Your task to perform on an android device: move a message to another label in the gmail app Image 0: 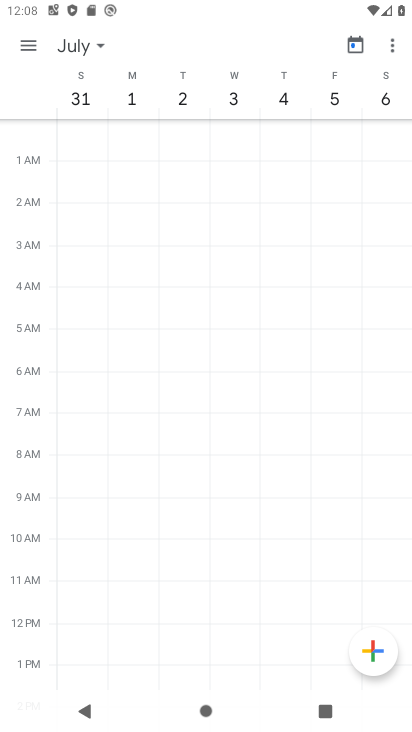
Step 0: press home button
Your task to perform on an android device: move a message to another label in the gmail app Image 1: 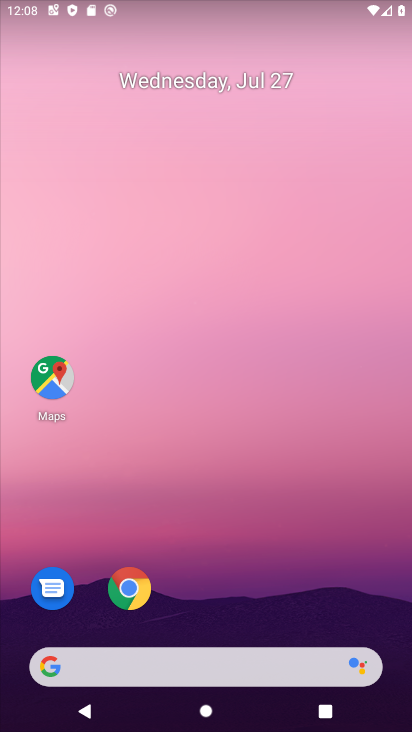
Step 1: drag from (255, 621) to (179, 112)
Your task to perform on an android device: move a message to another label in the gmail app Image 2: 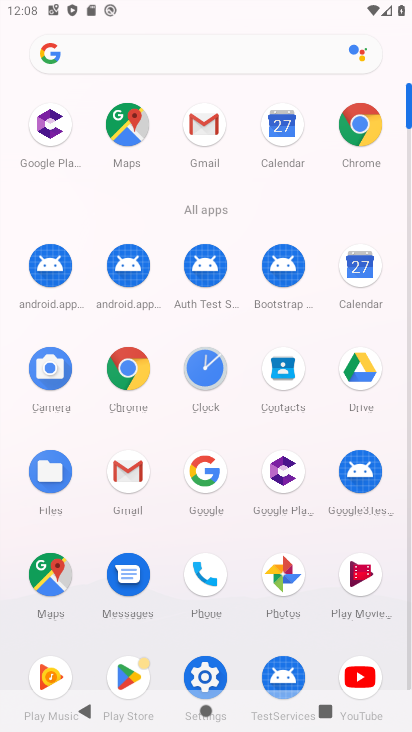
Step 2: click (203, 134)
Your task to perform on an android device: move a message to another label in the gmail app Image 3: 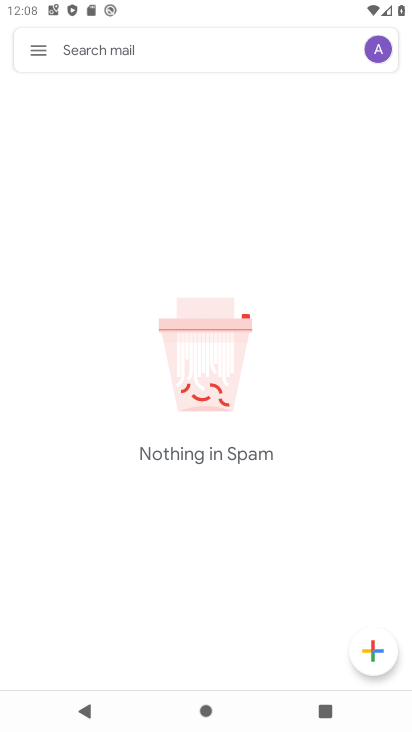
Step 3: click (32, 62)
Your task to perform on an android device: move a message to another label in the gmail app Image 4: 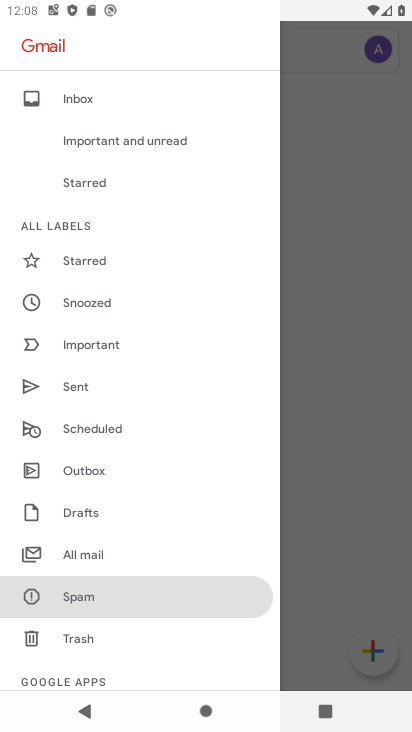
Step 4: click (91, 110)
Your task to perform on an android device: move a message to another label in the gmail app Image 5: 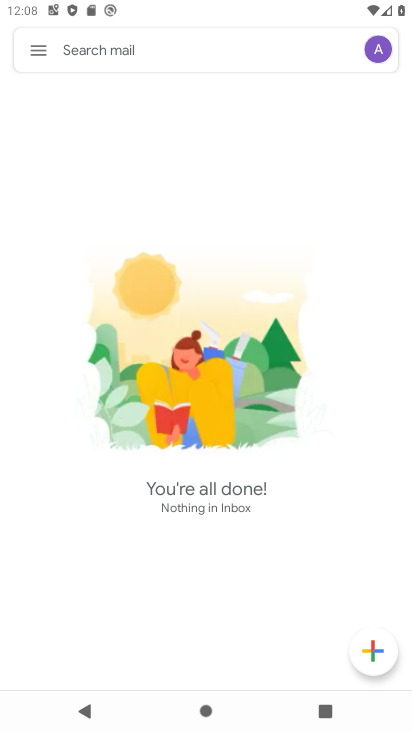
Step 5: task complete